Your task to perform on an android device: uninstall "Fetch Rewards" Image 0: 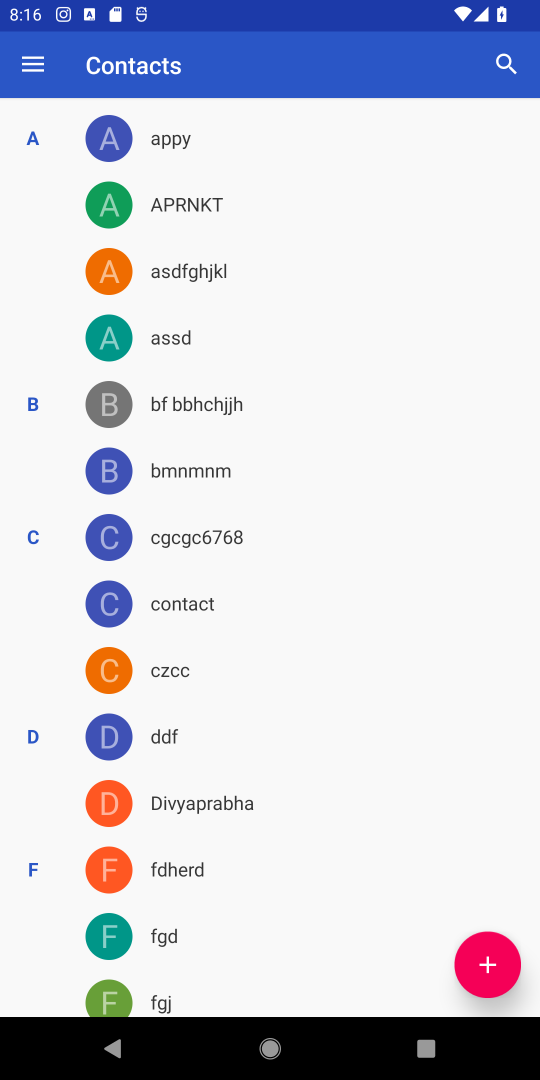
Step 0: press home button
Your task to perform on an android device: uninstall "Fetch Rewards" Image 1: 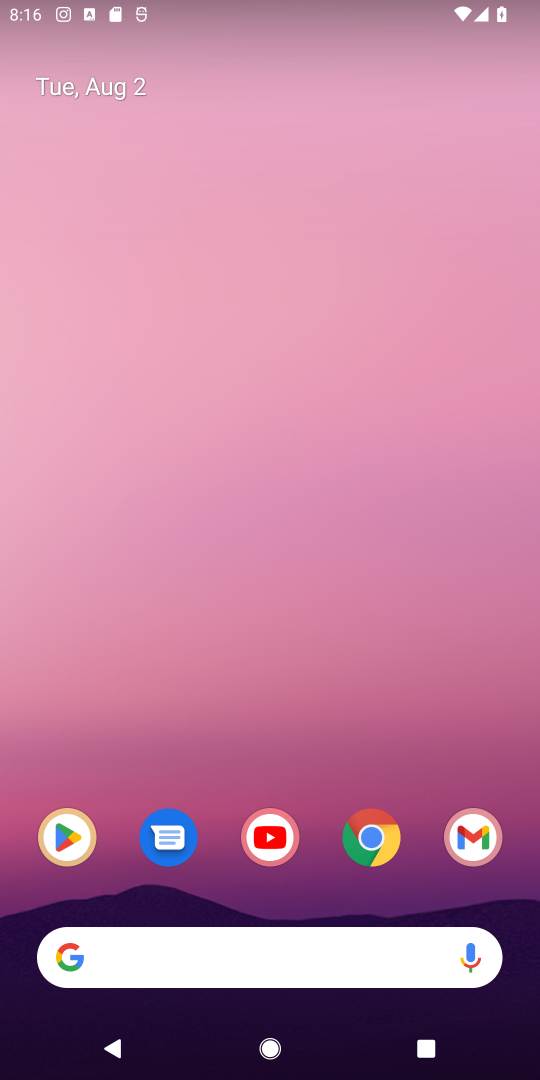
Step 1: click (72, 842)
Your task to perform on an android device: uninstall "Fetch Rewards" Image 2: 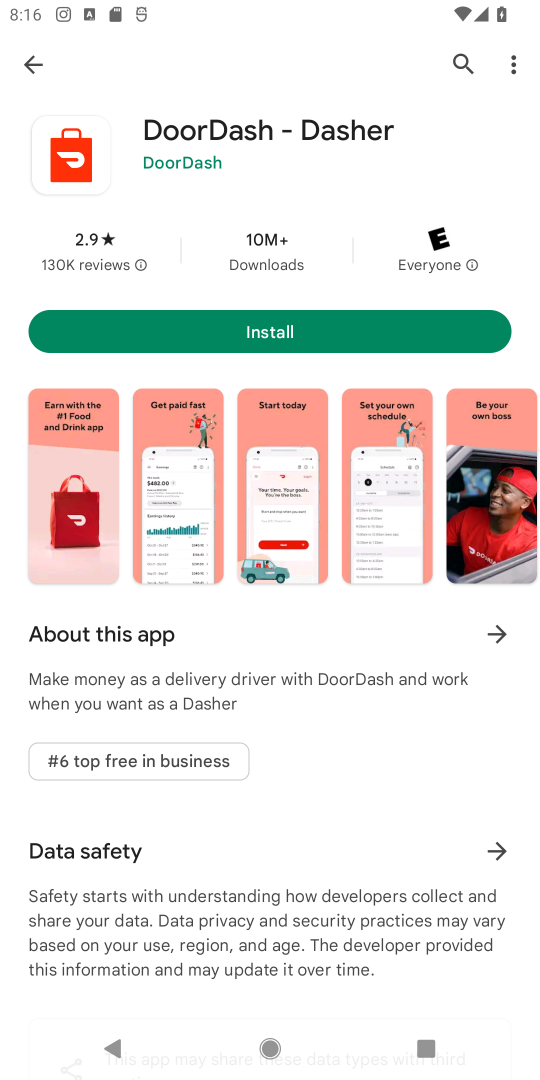
Step 2: click (459, 55)
Your task to perform on an android device: uninstall "Fetch Rewards" Image 3: 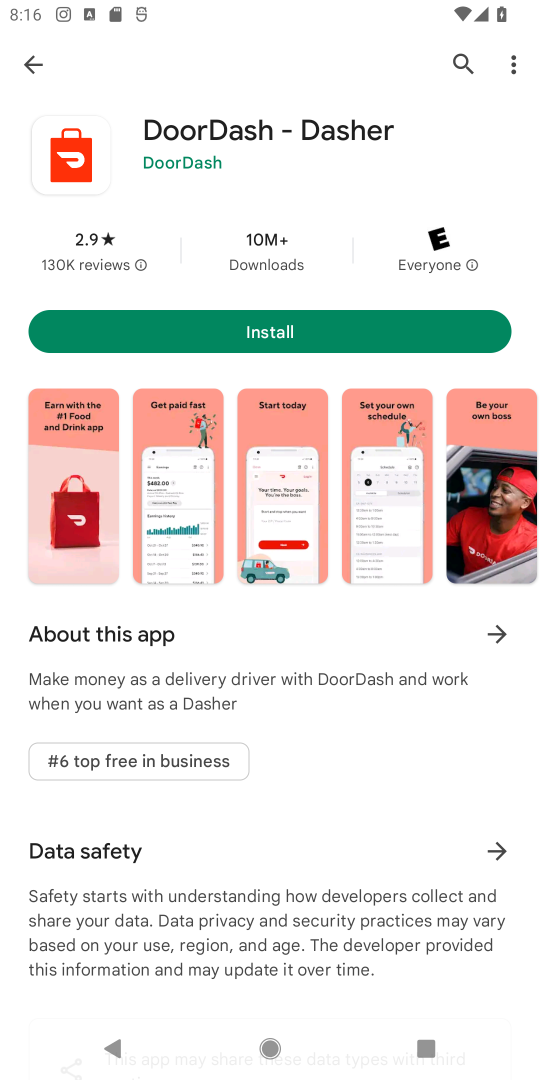
Step 3: click (459, 63)
Your task to perform on an android device: uninstall "Fetch Rewards" Image 4: 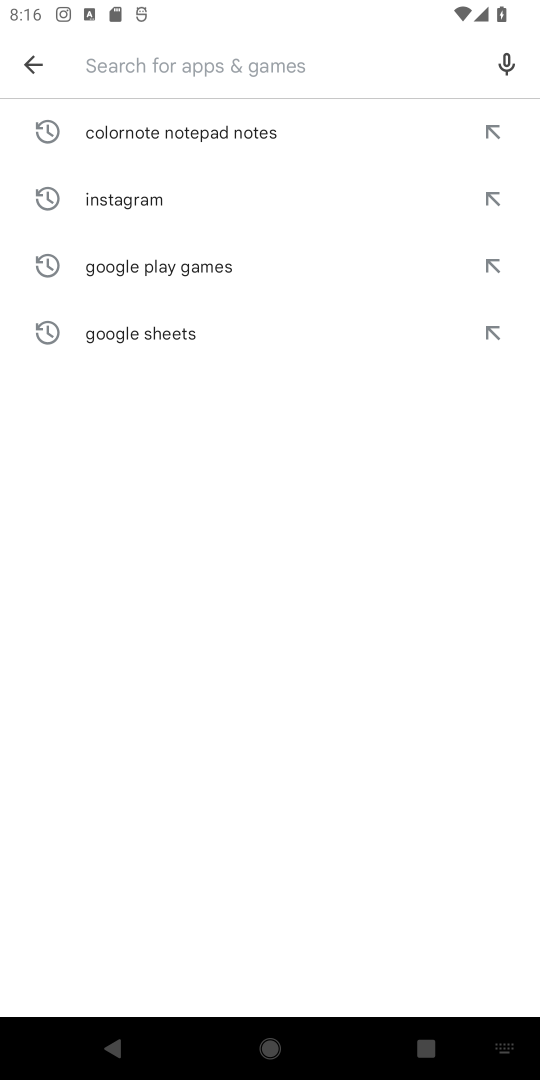
Step 4: type "Fetch Rewards"
Your task to perform on an android device: uninstall "Fetch Rewards" Image 5: 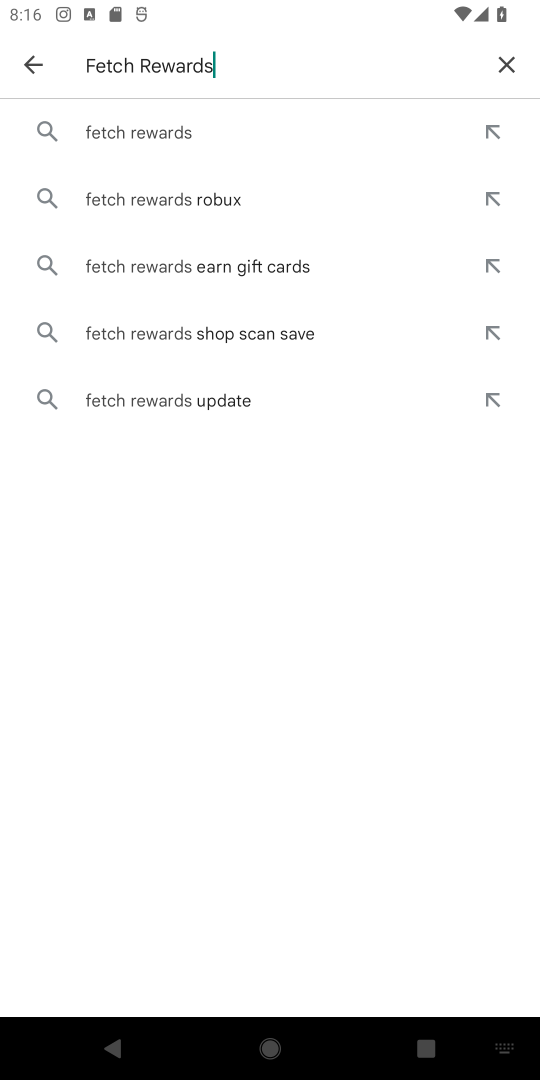
Step 5: click (134, 136)
Your task to perform on an android device: uninstall "Fetch Rewards" Image 6: 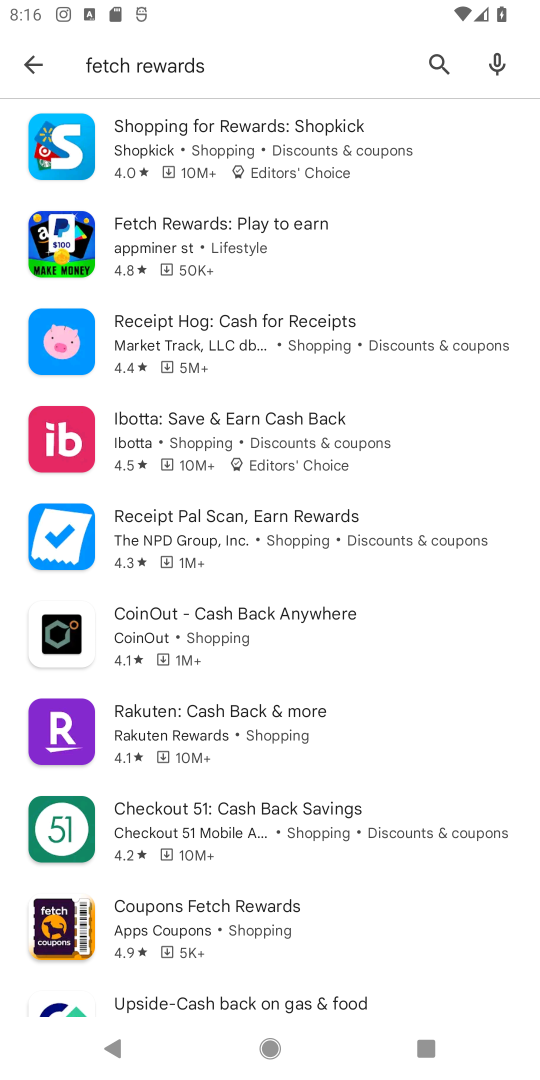
Step 6: click (151, 224)
Your task to perform on an android device: uninstall "Fetch Rewards" Image 7: 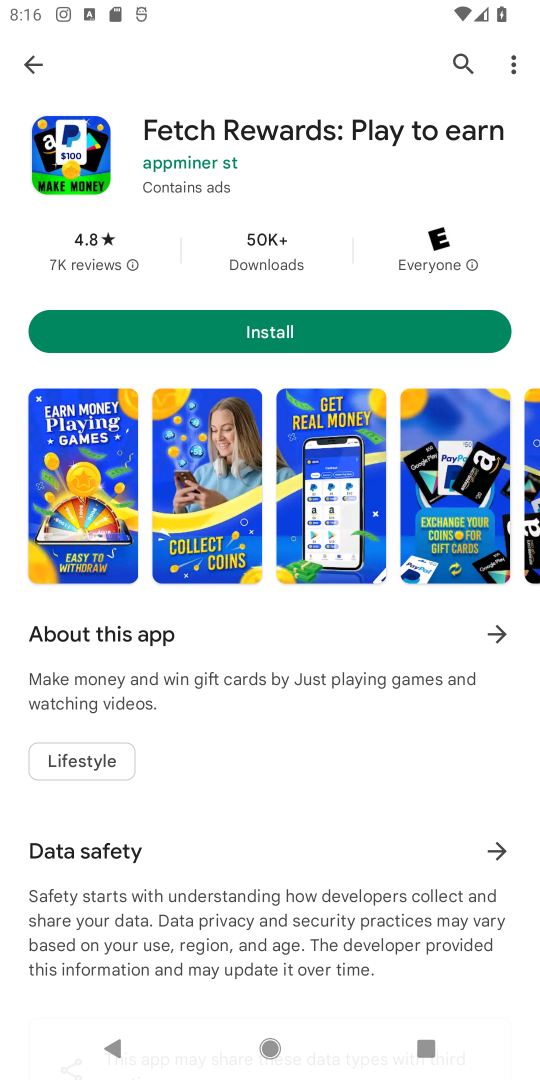
Step 7: task complete